Your task to perform on an android device: Show me recent news Image 0: 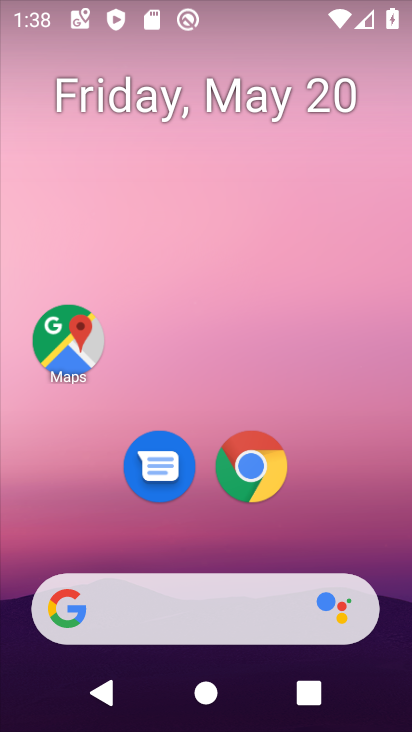
Step 0: click (271, 616)
Your task to perform on an android device: Show me recent news Image 1: 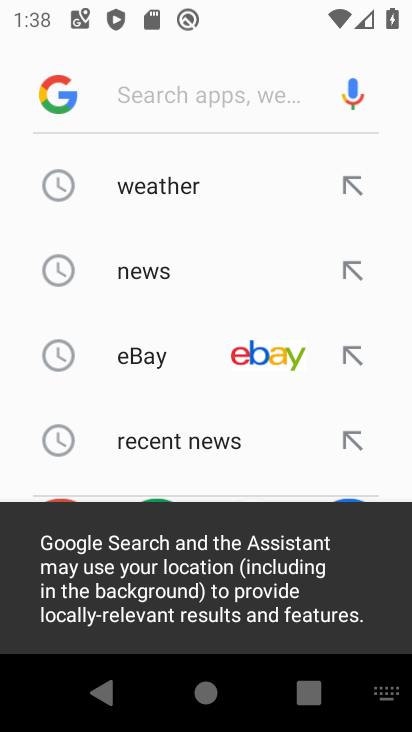
Step 1: click (94, 271)
Your task to perform on an android device: Show me recent news Image 2: 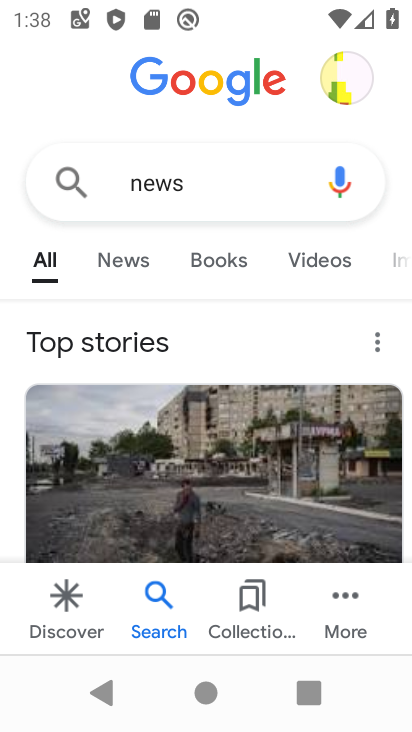
Step 2: click (128, 261)
Your task to perform on an android device: Show me recent news Image 3: 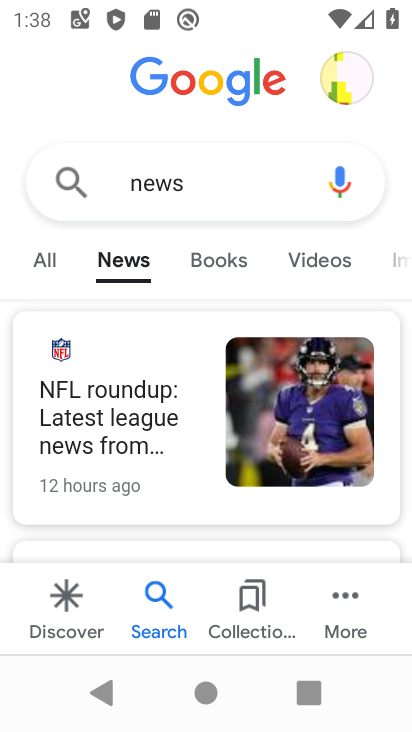
Step 3: task complete